Your task to perform on an android device: install app "Adobe Acrobat Reader" Image 0: 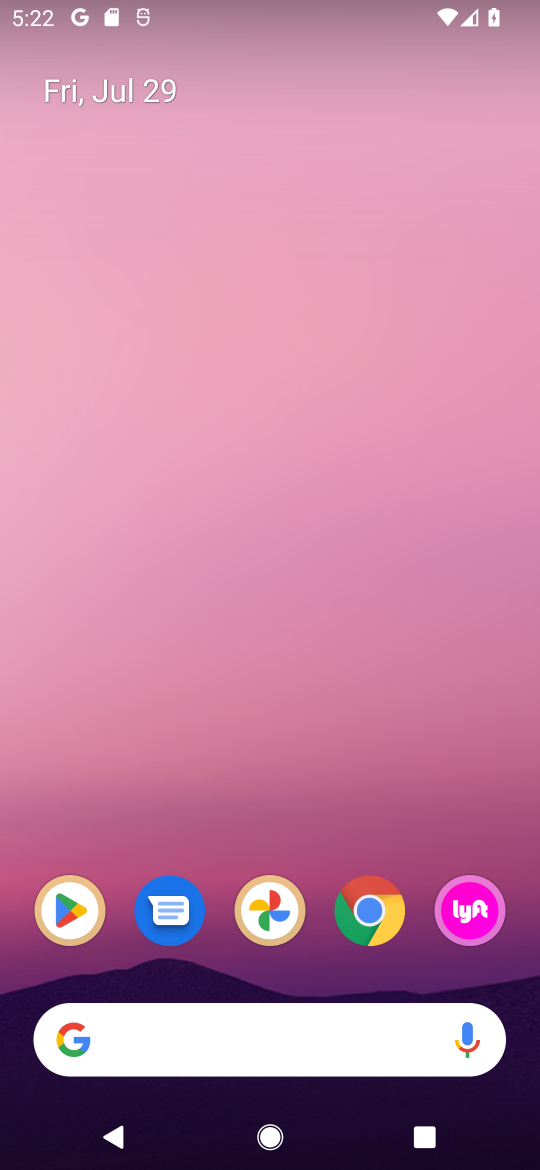
Step 0: click (66, 901)
Your task to perform on an android device: install app "Adobe Acrobat Reader" Image 1: 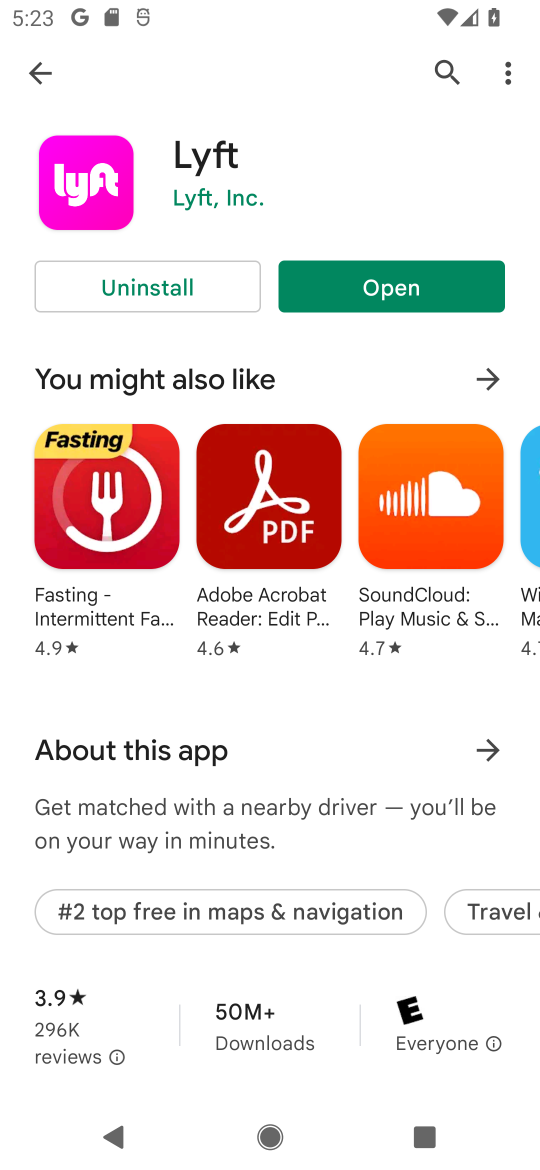
Step 1: click (445, 75)
Your task to perform on an android device: install app "Adobe Acrobat Reader" Image 2: 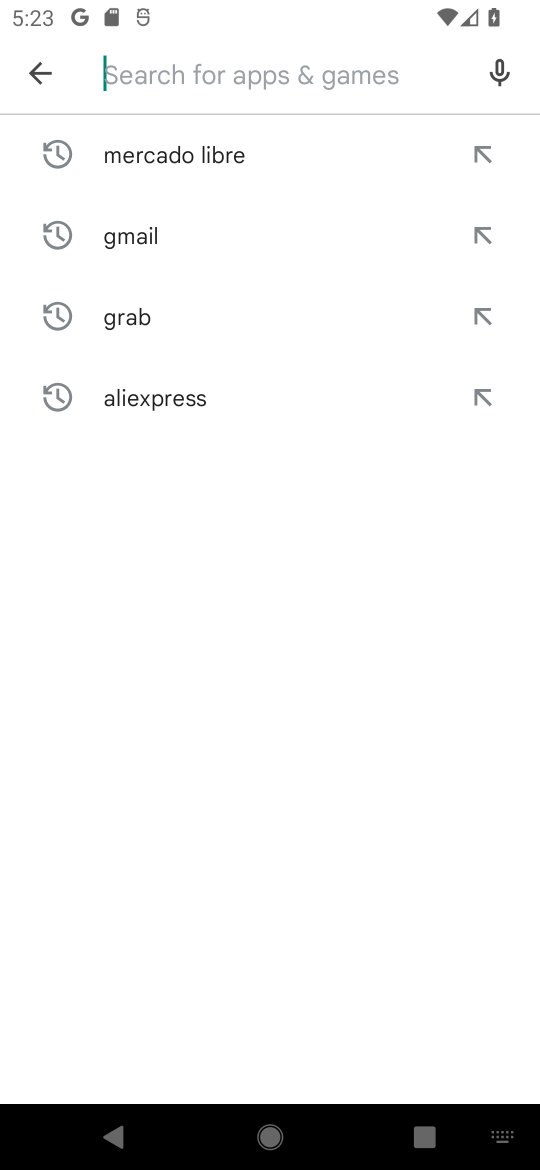
Step 2: type "Adobe Acrobat Reader"
Your task to perform on an android device: install app "Adobe Acrobat Reader" Image 3: 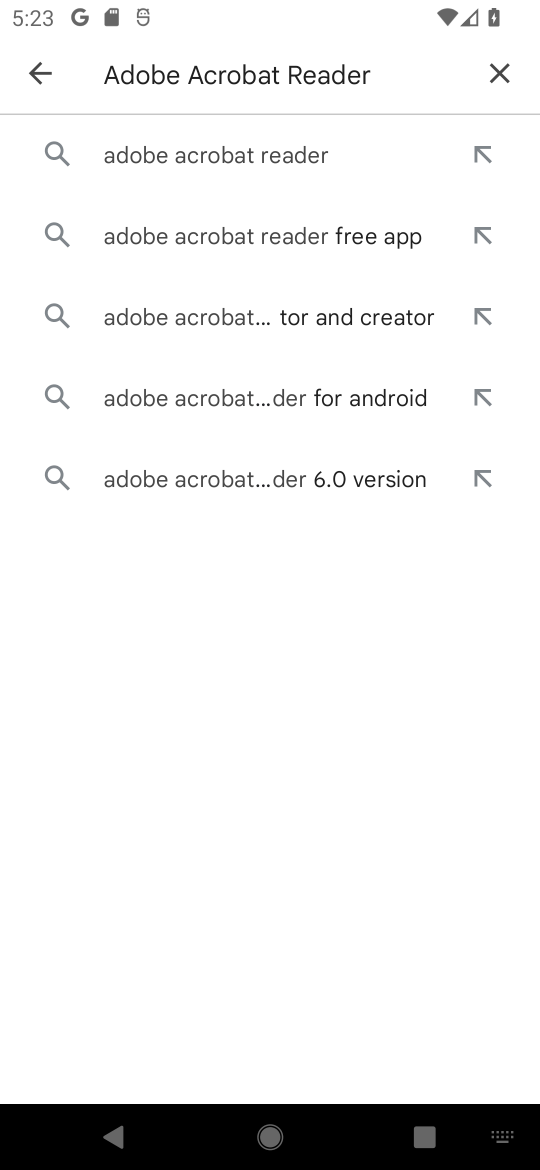
Step 3: click (166, 136)
Your task to perform on an android device: install app "Adobe Acrobat Reader" Image 4: 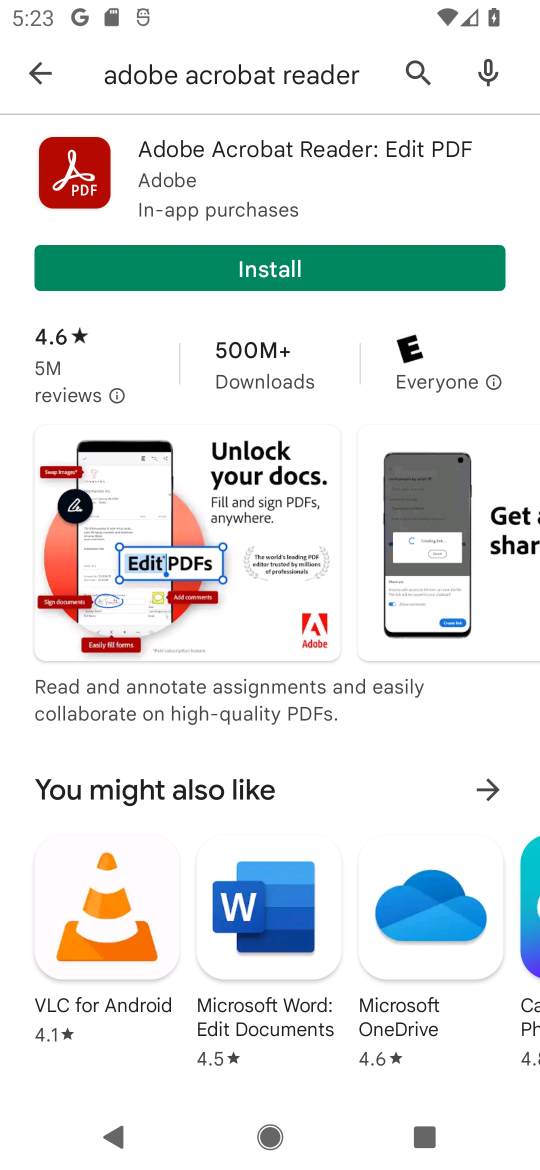
Step 4: click (325, 150)
Your task to perform on an android device: install app "Adobe Acrobat Reader" Image 5: 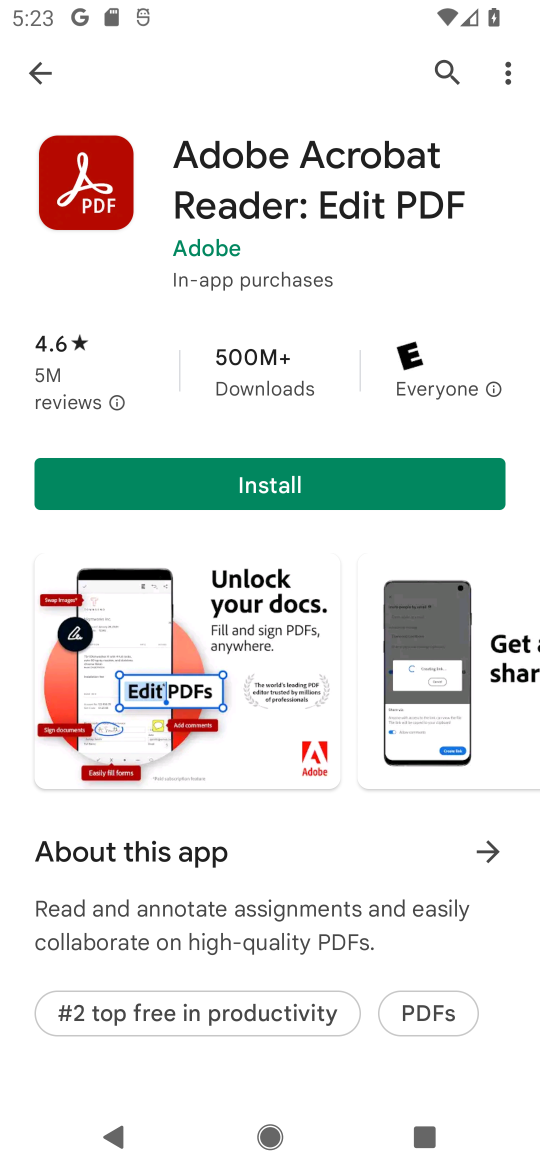
Step 5: click (273, 483)
Your task to perform on an android device: install app "Adobe Acrobat Reader" Image 6: 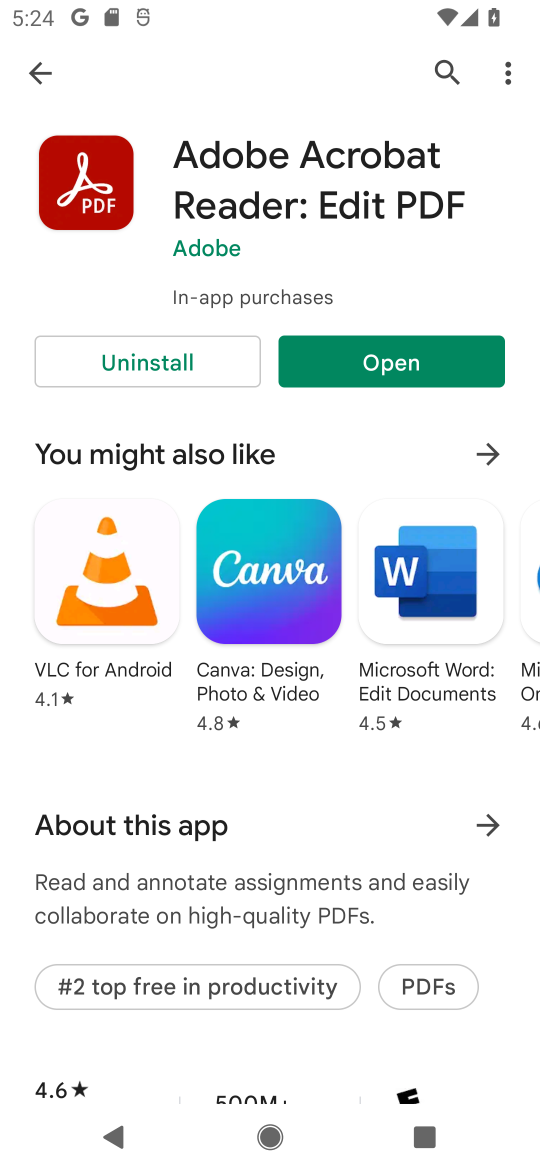
Step 6: task complete